Your task to perform on an android device: choose inbox layout in the gmail app Image 0: 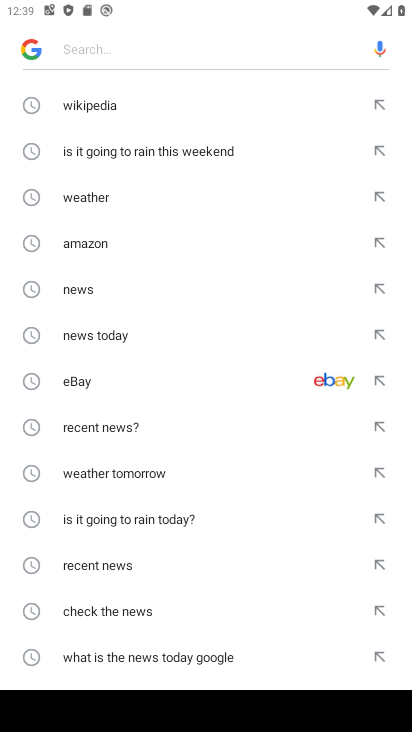
Step 0: press home button
Your task to perform on an android device: choose inbox layout in the gmail app Image 1: 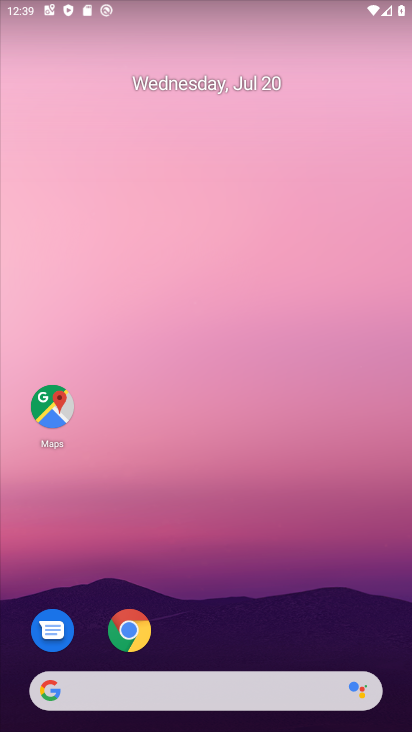
Step 1: click (211, 77)
Your task to perform on an android device: choose inbox layout in the gmail app Image 2: 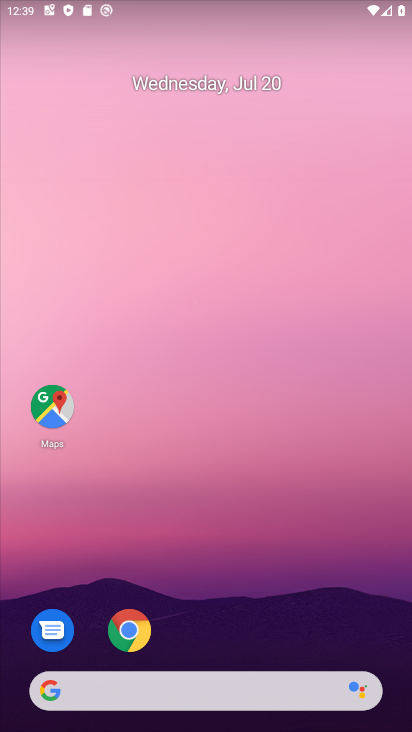
Step 2: drag from (214, 650) to (253, 101)
Your task to perform on an android device: choose inbox layout in the gmail app Image 3: 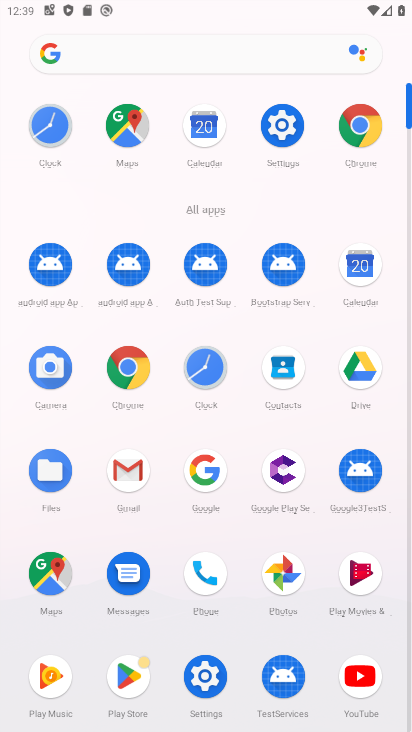
Step 3: click (128, 476)
Your task to perform on an android device: choose inbox layout in the gmail app Image 4: 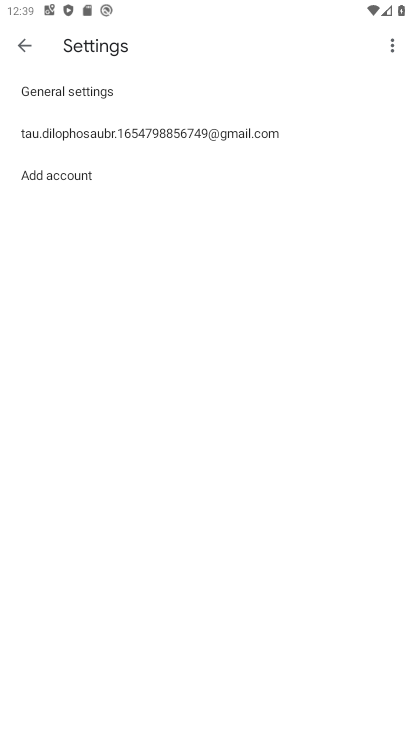
Step 4: click (25, 42)
Your task to perform on an android device: choose inbox layout in the gmail app Image 5: 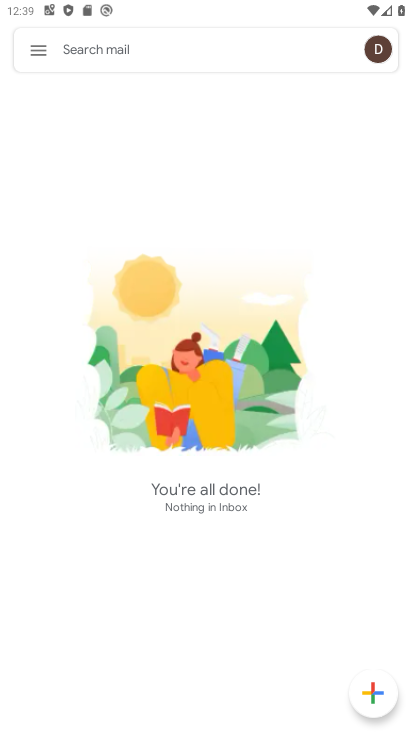
Step 5: click (42, 47)
Your task to perform on an android device: choose inbox layout in the gmail app Image 6: 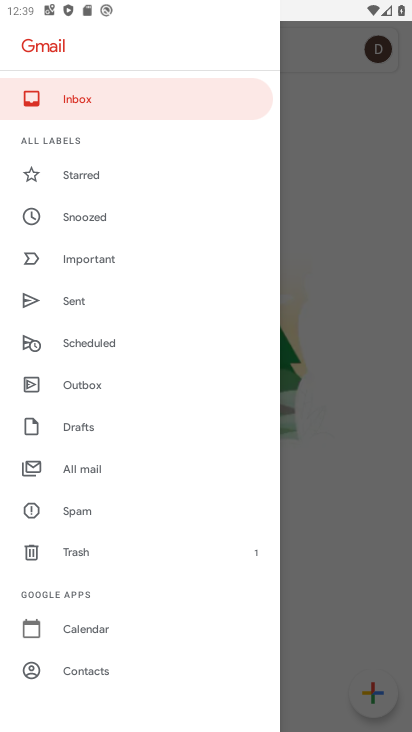
Step 6: drag from (156, 584) to (218, 143)
Your task to perform on an android device: choose inbox layout in the gmail app Image 7: 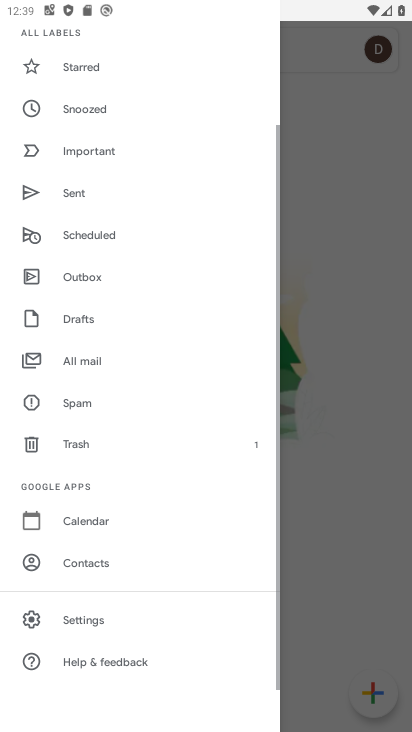
Step 7: click (99, 622)
Your task to perform on an android device: choose inbox layout in the gmail app Image 8: 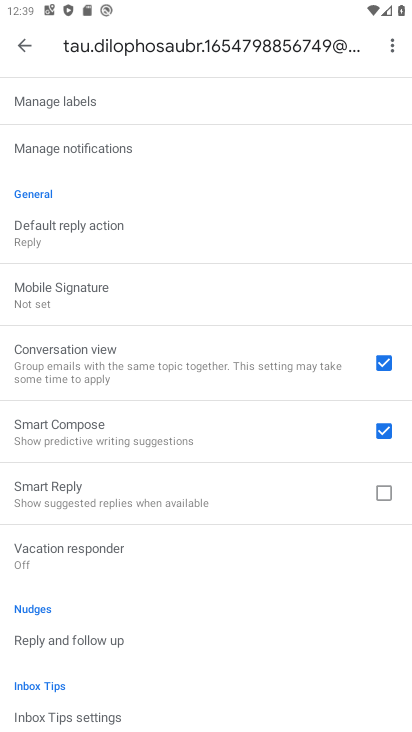
Step 8: drag from (196, 79) to (160, 543)
Your task to perform on an android device: choose inbox layout in the gmail app Image 9: 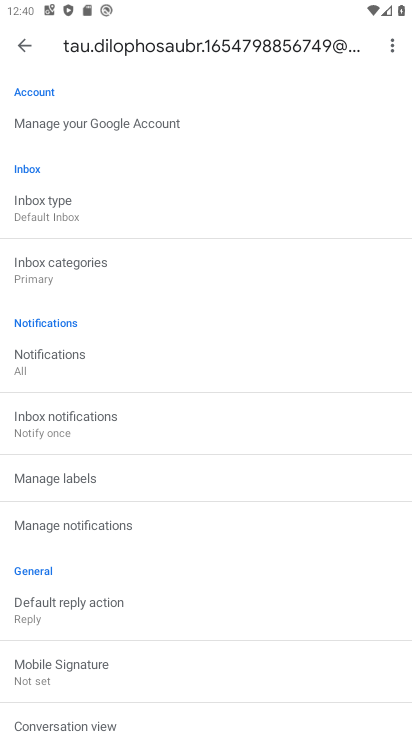
Step 9: click (47, 210)
Your task to perform on an android device: choose inbox layout in the gmail app Image 10: 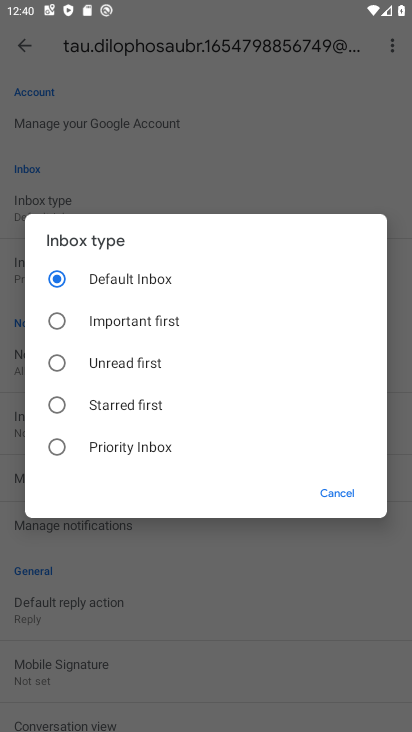
Step 10: task complete